Your task to perform on an android device: delete the emails in spam in the gmail app Image 0: 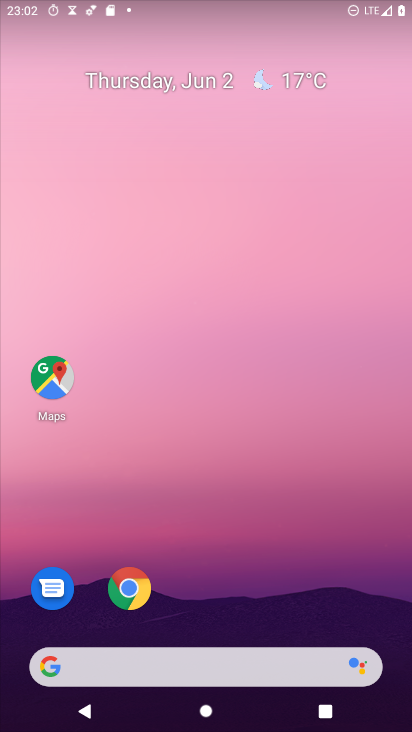
Step 0: drag from (283, 608) to (321, 126)
Your task to perform on an android device: delete the emails in spam in the gmail app Image 1: 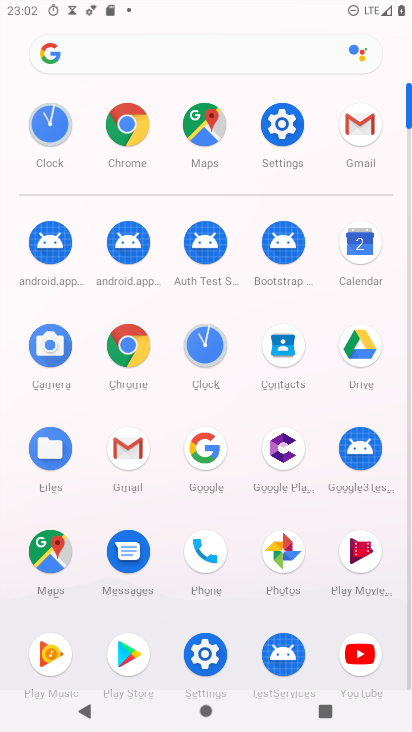
Step 1: click (367, 120)
Your task to perform on an android device: delete the emails in spam in the gmail app Image 2: 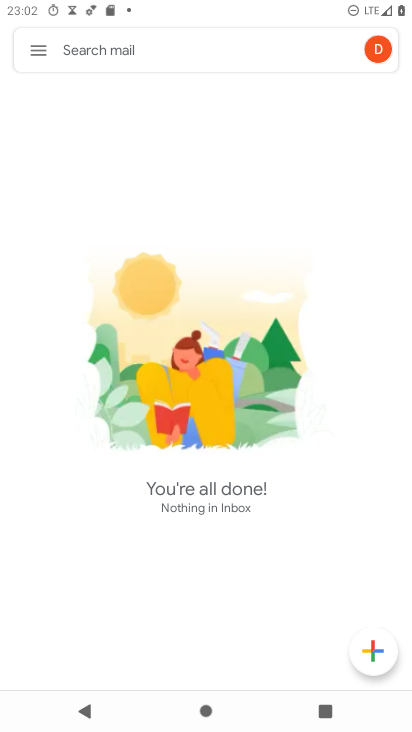
Step 2: click (34, 48)
Your task to perform on an android device: delete the emails in spam in the gmail app Image 3: 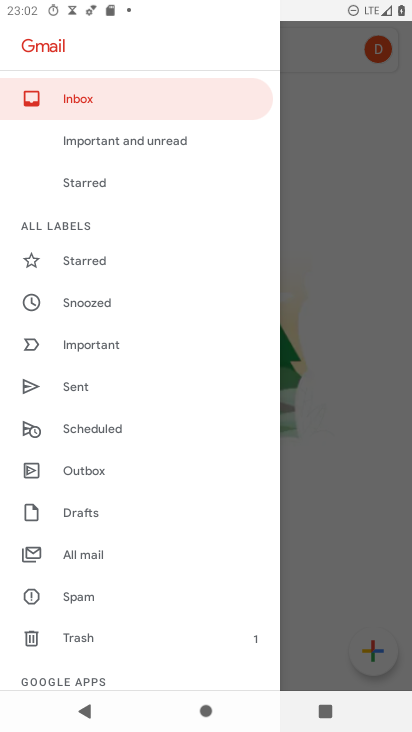
Step 3: click (72, 585)
Your task to perform on an android device: delete the emails in spam in the gmail app Image 4: 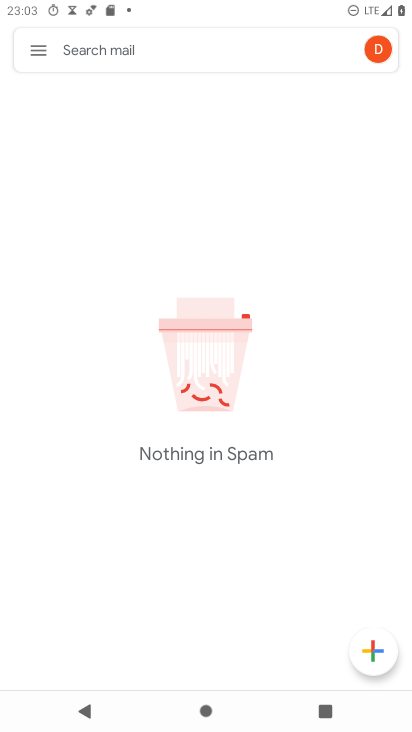
Step 4: task complete